Your task to perform on an android device: change keyboard looks Image 0: 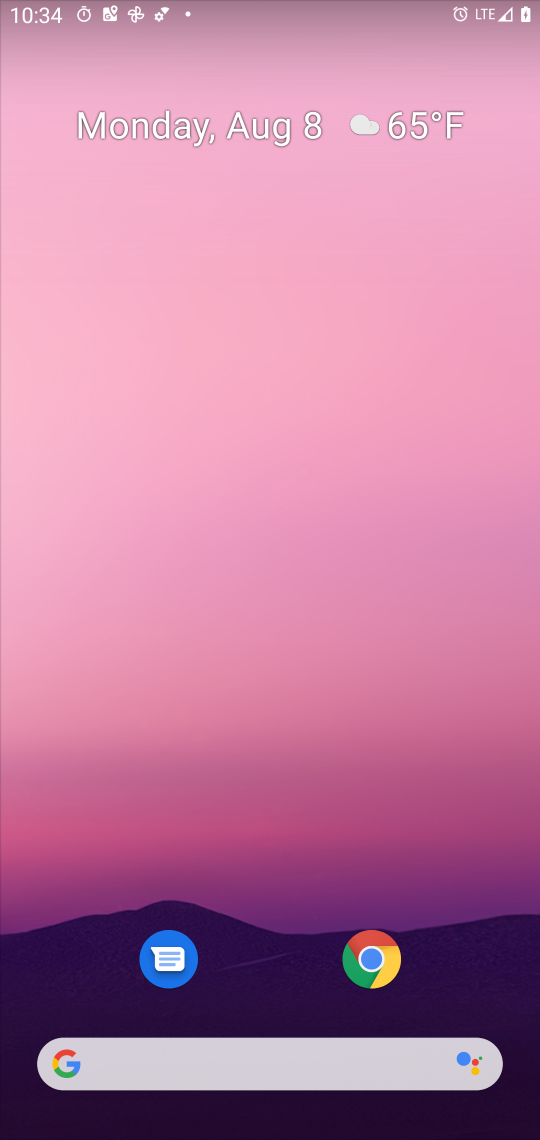
Step 0: drag from (498, 990) to (102, 6)
Your task to perform on an android device: change keyboard looks Image 1: 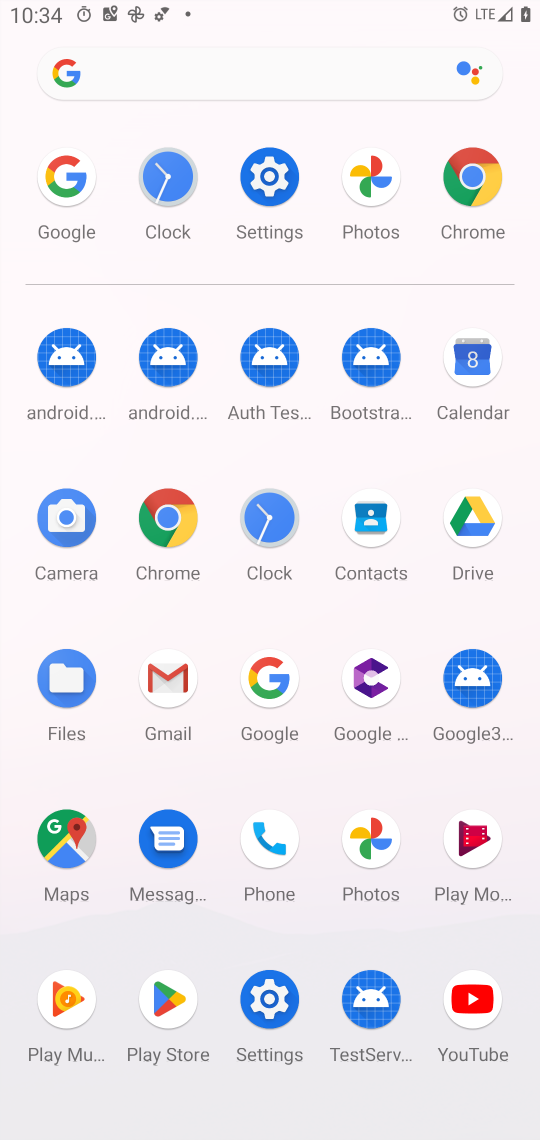
Step 1: click (251, 991)
Your task to perform on an android device: change keyboard looks Image 2: 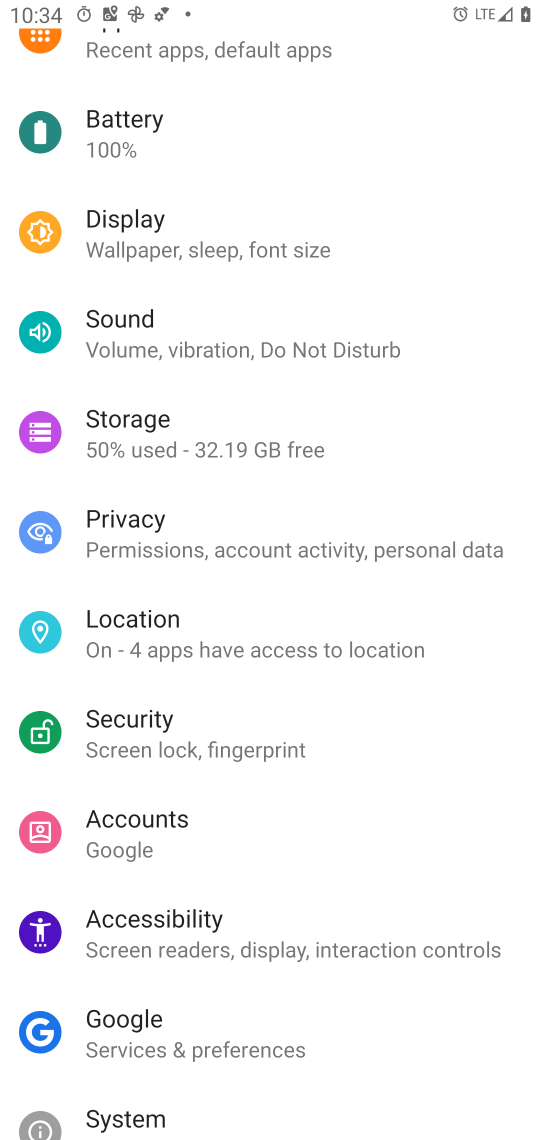
Step 2: drag from (252, 978) to (259, 29)
Your task to perform on an android device: change keyboard looks Image 3: 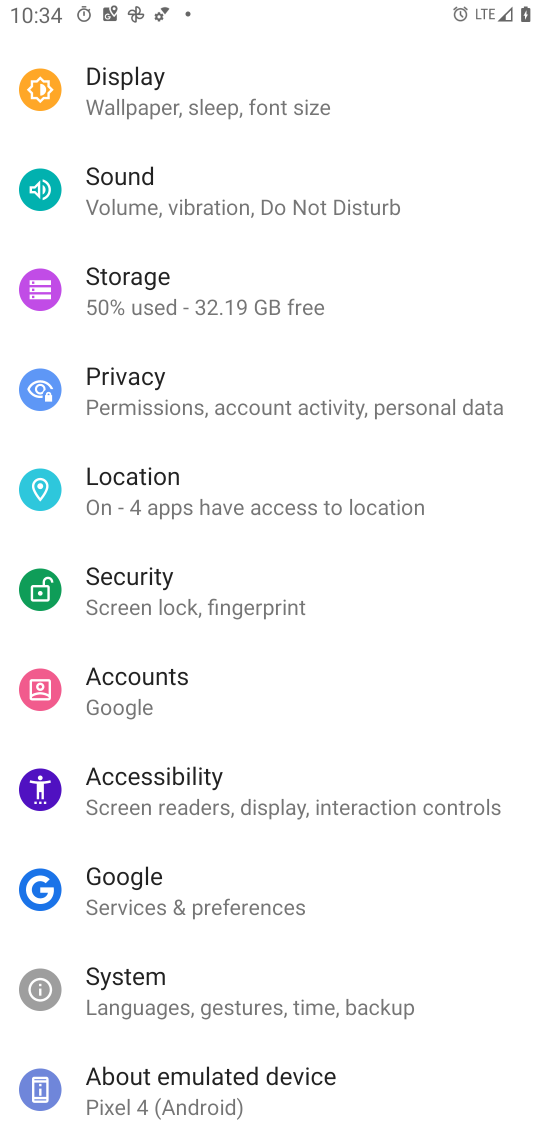
Step 3: click (153, 997)
Your task to perform on an android device: change keyboard looks Image 4: 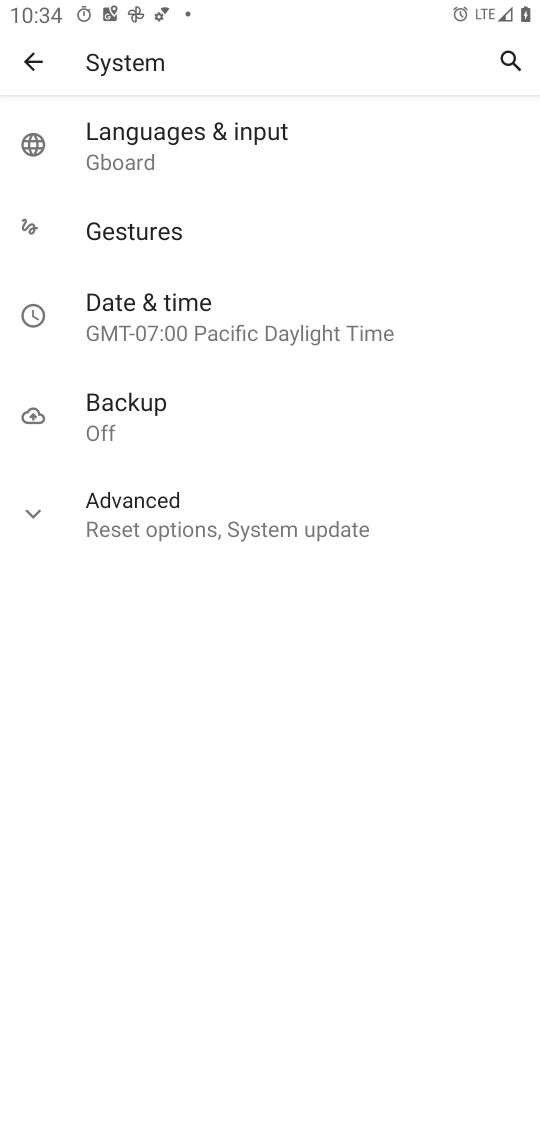
Step 4: click (184, 148)
Your task to perform on an android device: change keyboard looks Image 5: 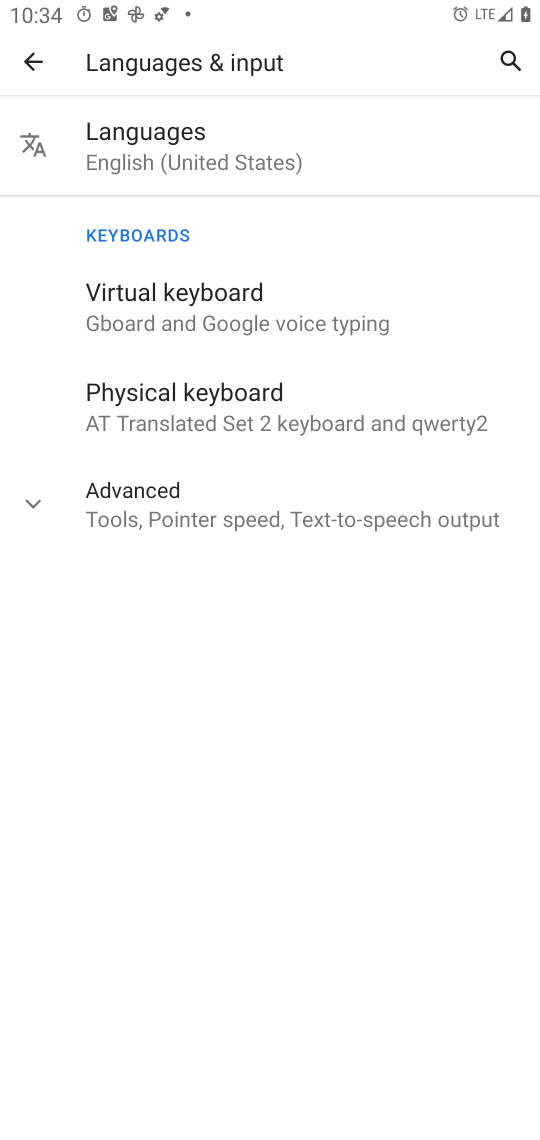
Step 5: click (189, 303)
Your task to perform on an android device: change keyboard looks Image 6: 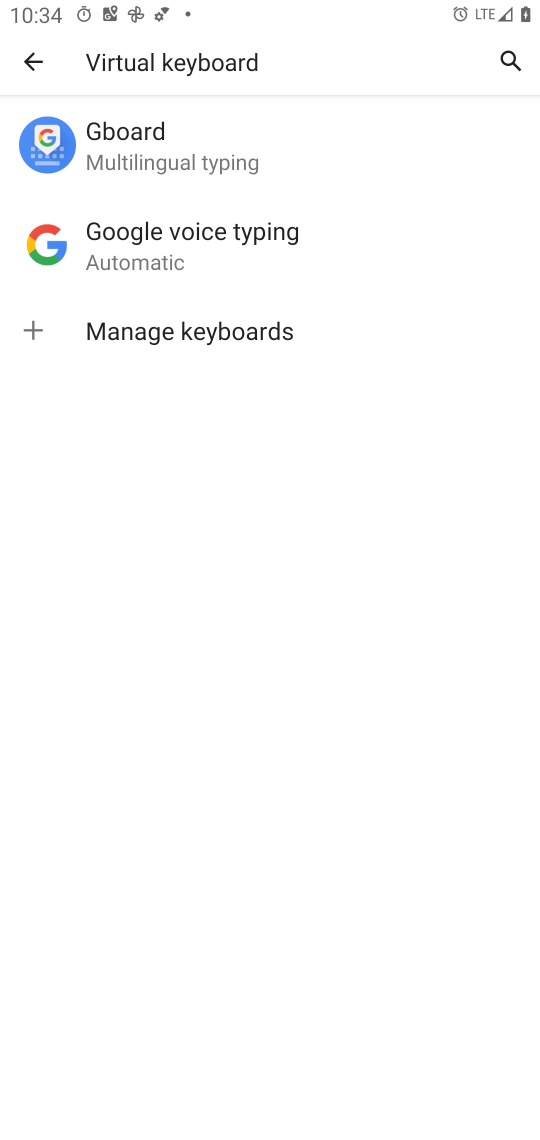
Step 6: click (133, 130)
Your task to perform on an android device: change keyboard looks Image 7: 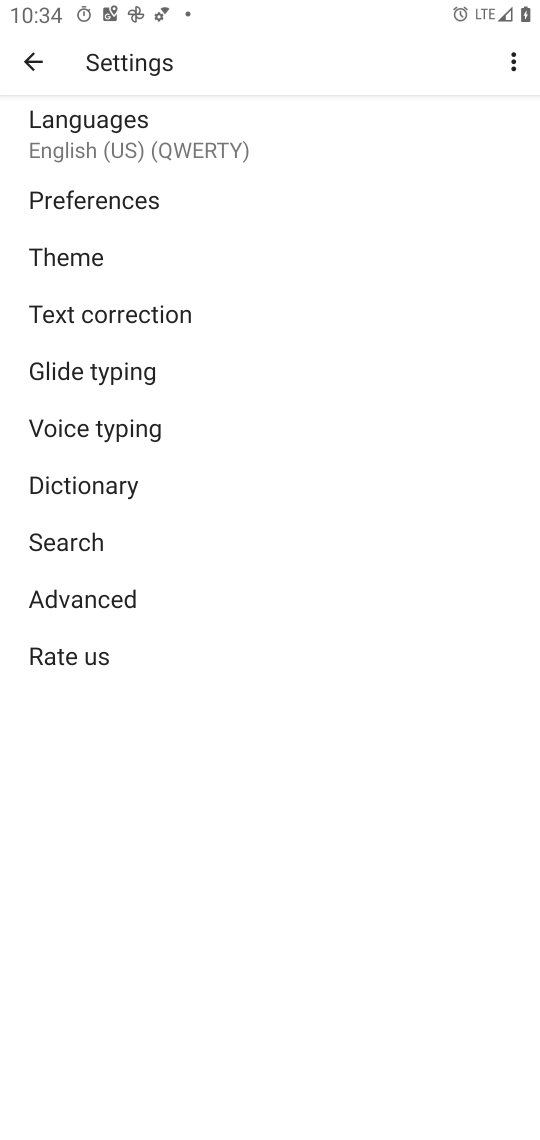
Step 7: click (119, 271)
Your task to perform on an android device: change keyboard looks Image 8: 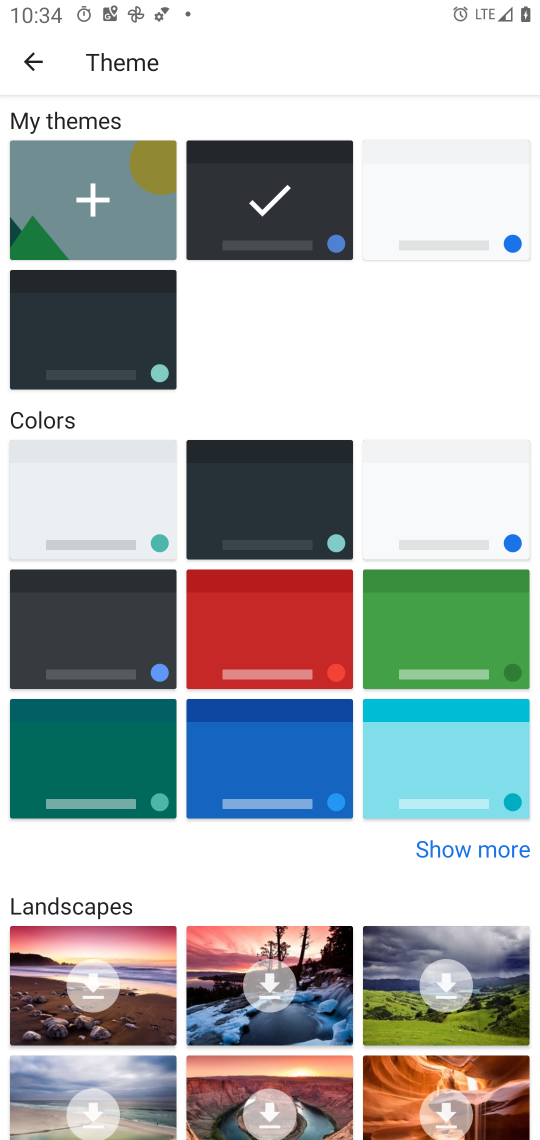
Step 8: click (419, 655)
Your task to perform on an android device: change keyboard looks Image 9: 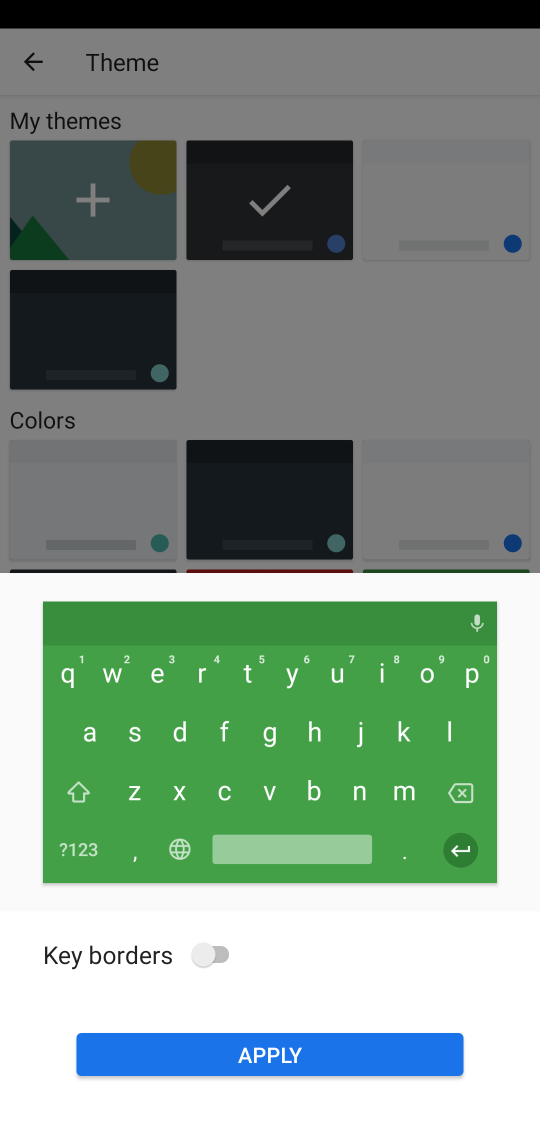
Step 9: click (247, 1054)
Your task to perform on an android device: change keyboard looks Image 10: 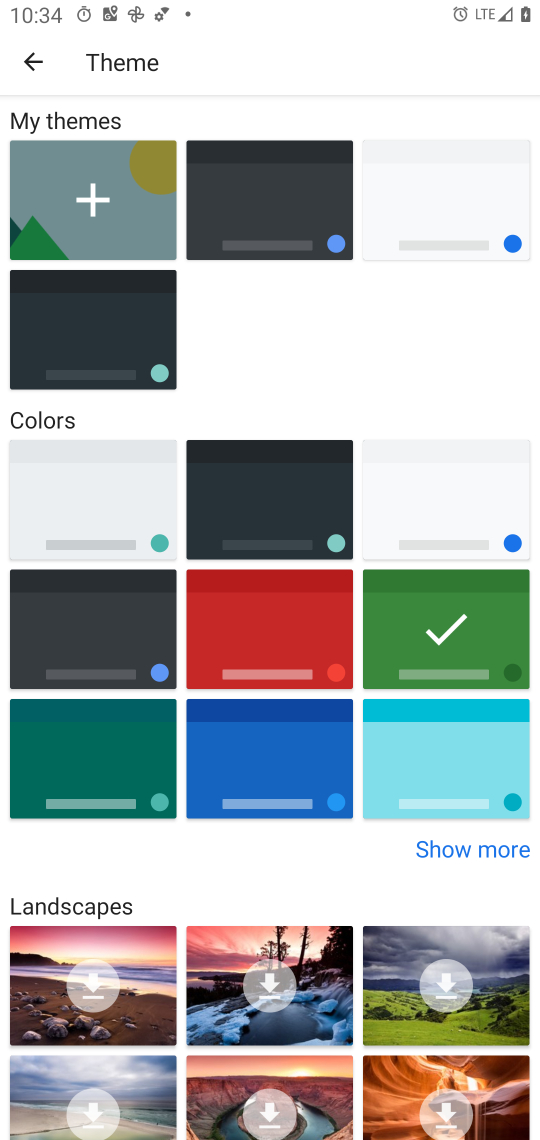
Step 10: task complete